Your task to perform on an android device: stop showing notifications on the lock screen Image 0: 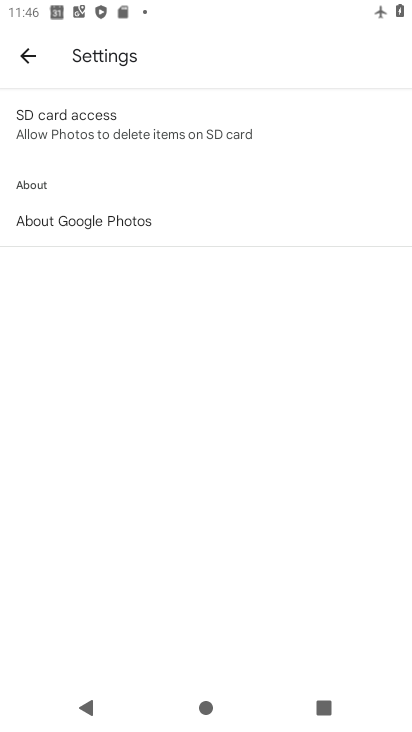
Step 0: press home button
Your task to perform on an android device: stop showing notifications on the lock screen Image 1: 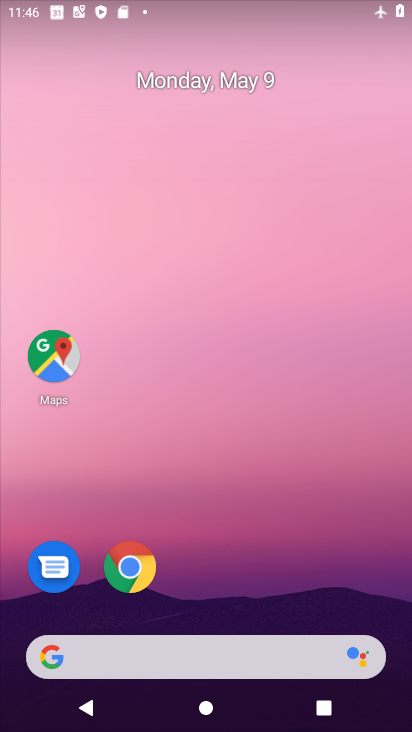
Step 1: drag from (362, 602) to (247, 137)
Your task to perform on an android device: stop showing notifications on the lock screen Image 2: 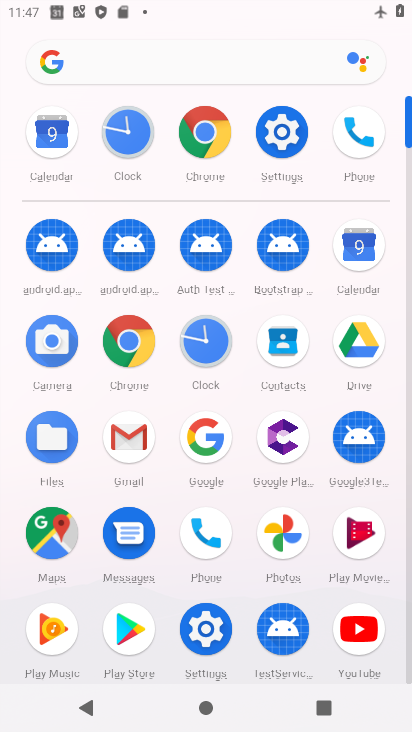
Step 2: click (215, 645)
Your task to perform on an android device: stop showing notifications on the lock screen Image 3: 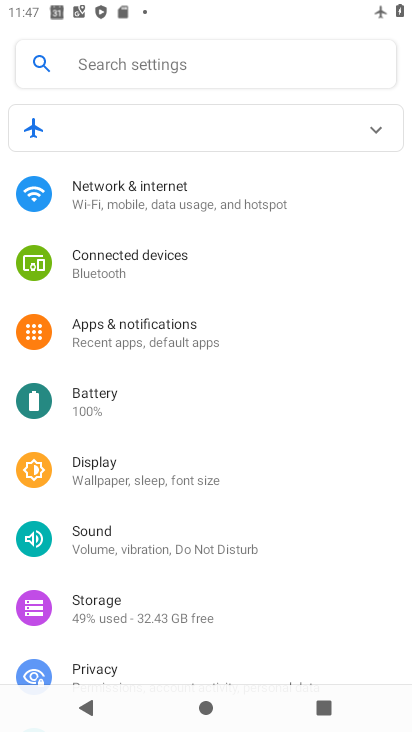
Step 3: click (167, 345)
Your task to perform on an android device: stop showing notifications on the lock screen Image 4: 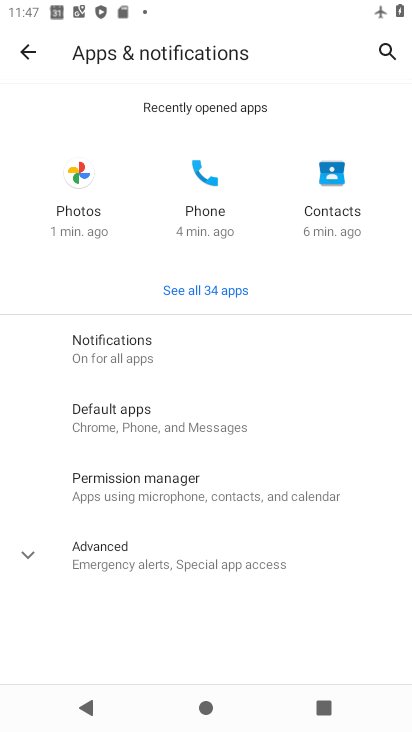
Step 4: click (177, 355)
Your task to perform on an android device: stop showing notifications on the lock screen Image 5: 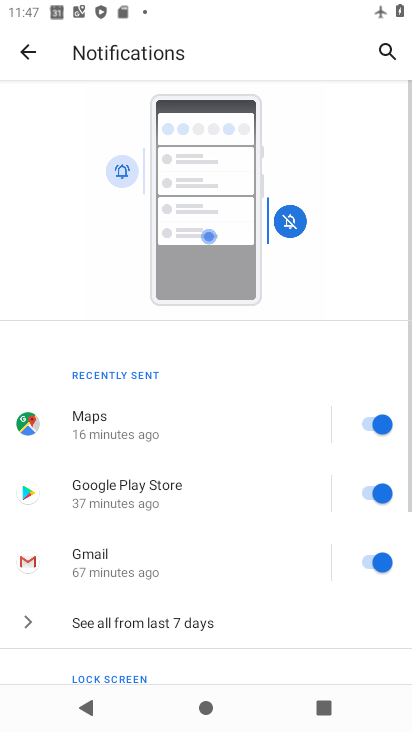
Step 5: drag from (196, 635) to (255, 172)
Your task to perform on an android device: stop showing notifications on the lock screen Image 6: 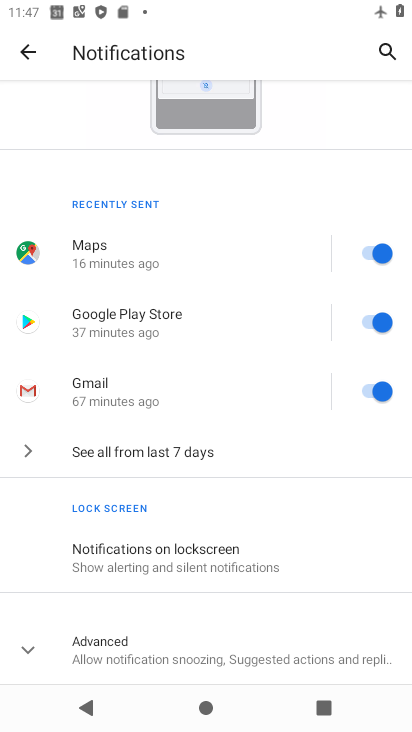
Step 6: click (157, 550)
Your task to perform on an android device: stop showing notifications on the lock screen Image 7: 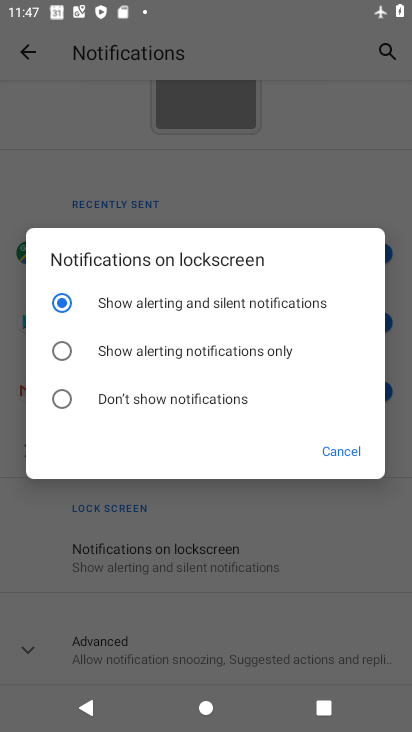
Step 7: click (38, 385)
Your task to perform on an android device: stop showing notifications on the lock screen Image 8: 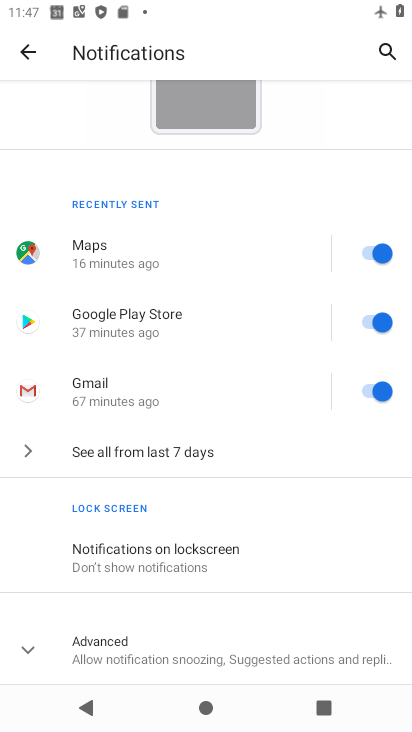
Step 8: task complete